Your task to perform on an android device: Check the news Image 0: 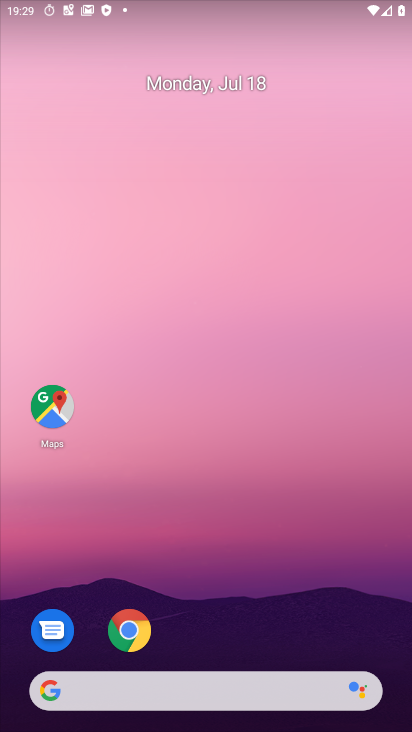
Step 0: drag from (188, 531) to (3, 258)
Your task to perform on an android device: Check the news Image 1: 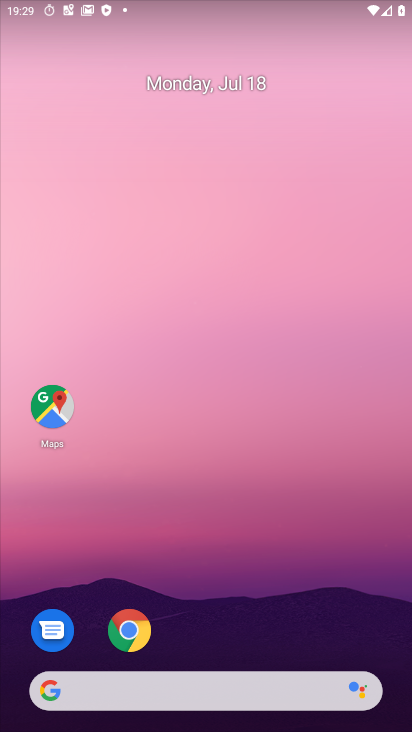
Step 1: drag from (222, 499) to (147, 26)
Your task to perform on an android device: Check the news Image 2: 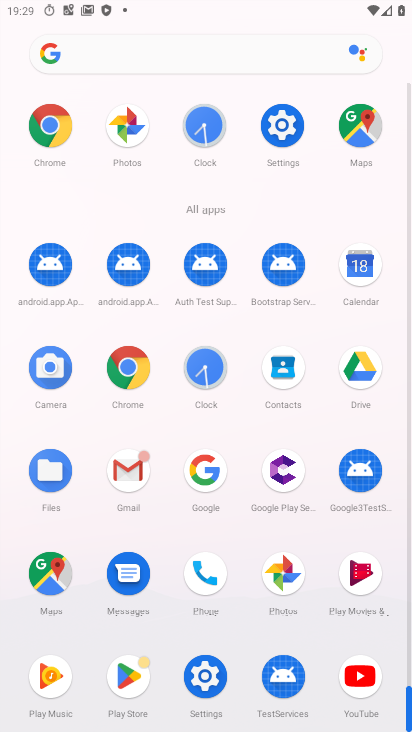
Step 2: click (39, 103)
Your task to perform on an android device: Check the news Image 3: 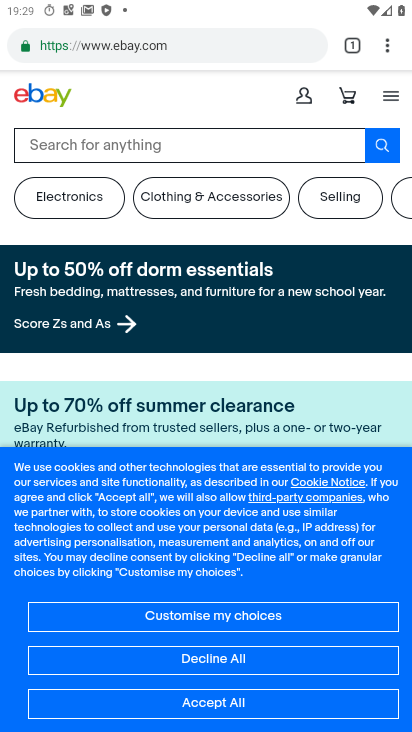
Step 3: task complete